Your task to perform on an android device: set an alarm Image 0: 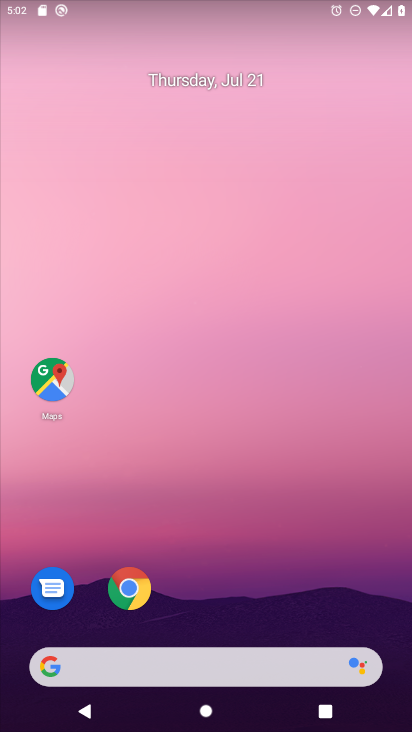
Step 0: click (272, 631)
Your task to perform on an android device: set an alarm Image 1: 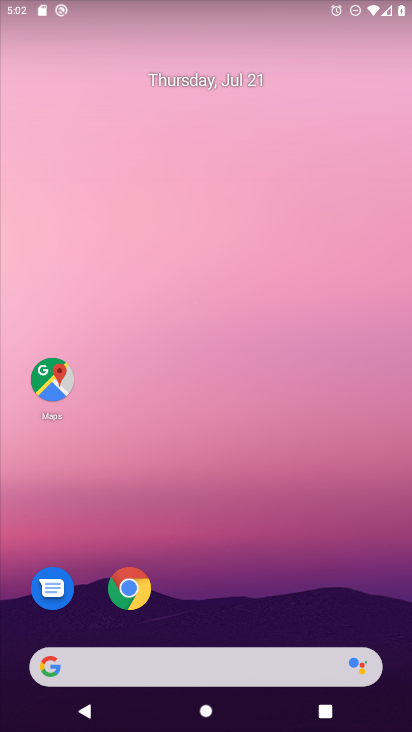
Step 1: drag from (272, 631) to (185, 108)
Your task to perform on an android device: set an alarm Image 2: 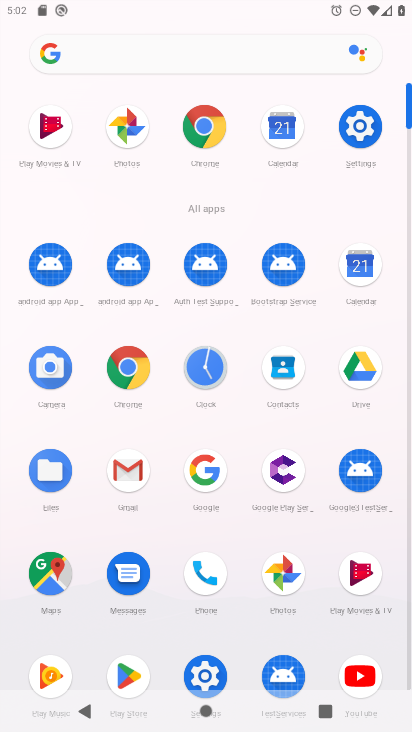
Step 2: click (213, 355)
Your task to perform on an android device: set an alarm Image 3: 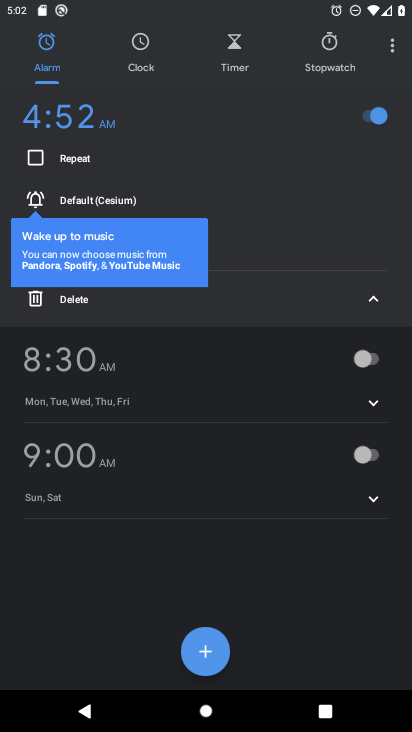
Step 3: click (204, 643)
Your task to perform on an android device: set an alarm Image 4: 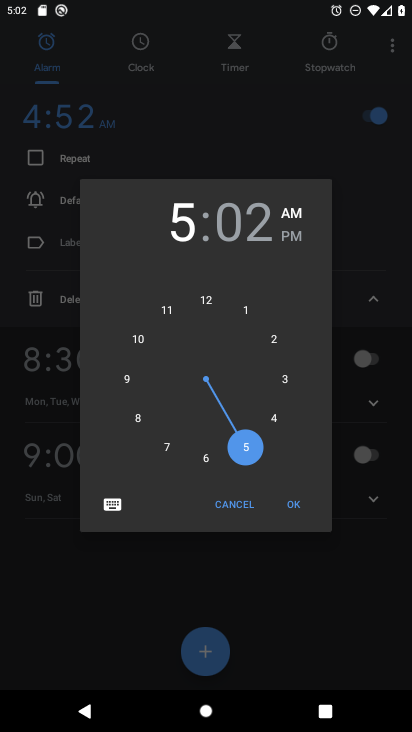
Step 4: click (287, 513)
Your task to perform on an android device: set an alarm Image 5: 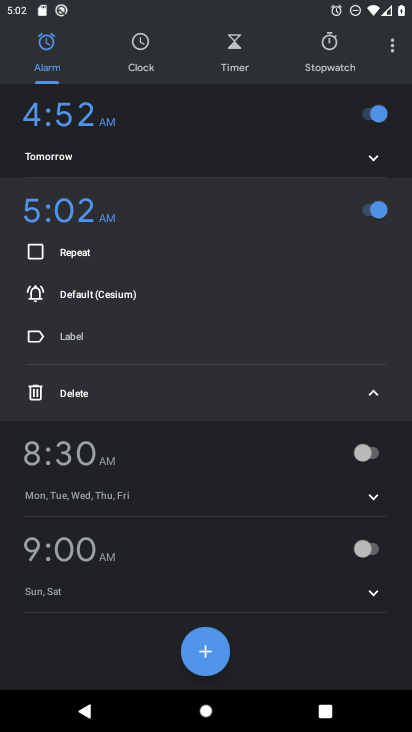
Step 5: task complete